Your task to perform on an android device: turn smart compose on in the gmail app Image 0: 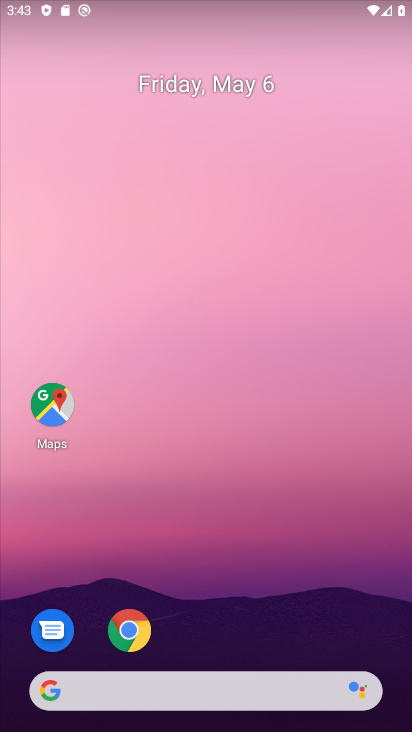
Step 0: drag from (278, 533) to (323, 21)
Your task to perform on an android device: turn smart compose on in the gmail app Image 1: 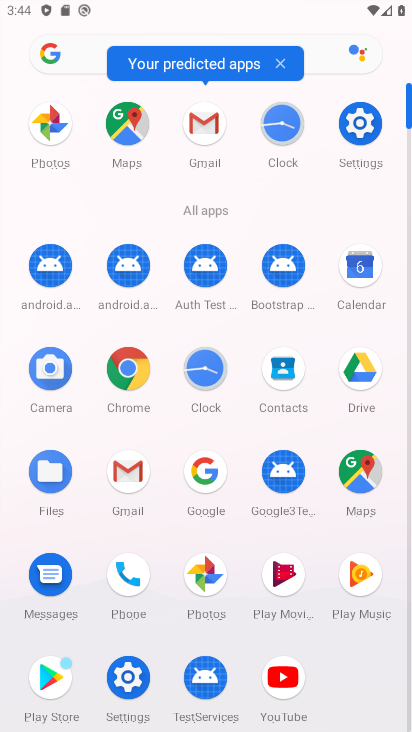
Step 1: click (130, 489)
Your task to perform on an android device: turn smart compose on in the gmail app Image 2: 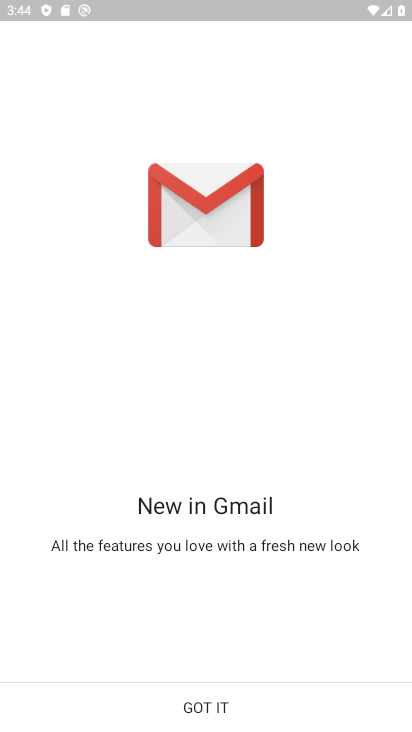
Step 2: click (282, 705)
Your task to perform on an android device: turn smart compose on in the gmail app Image 3: 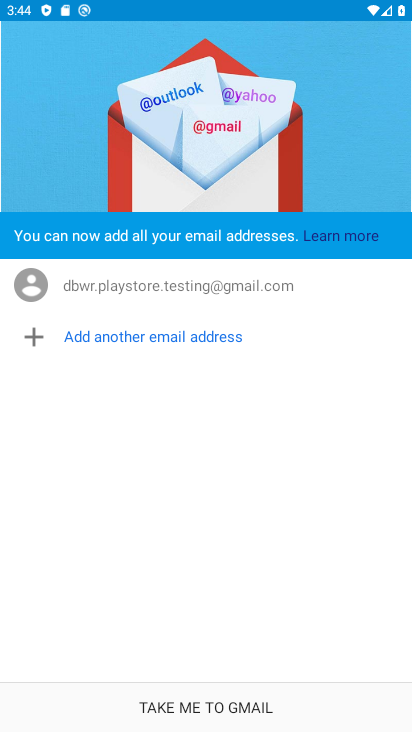
Step 3: click (291, 703)
Your task to perform on an android device: turn smart compose on in the gmail app Image 4: 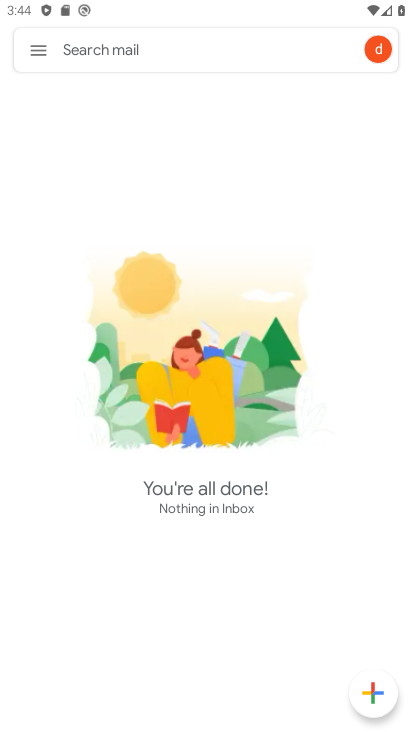
Step 4: click (45, 56)
Your task to perform on an android device: turn smart compose on in the gmail app Image 5: 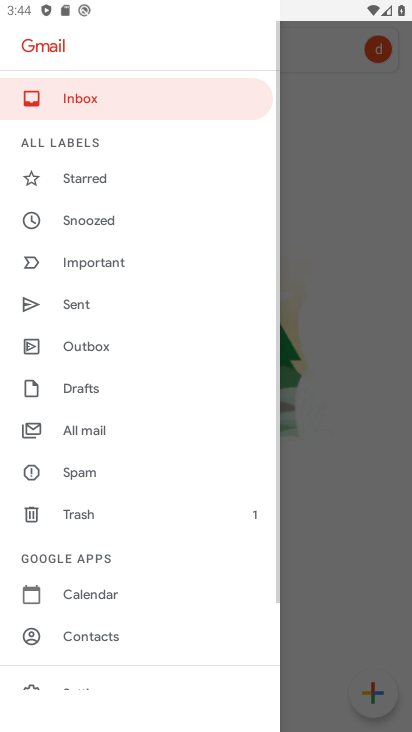
Step 5: drag from (89, 626) to (127, 285)
Your task to perform on an android device: turn smart compose on in the gmail app Image 6: 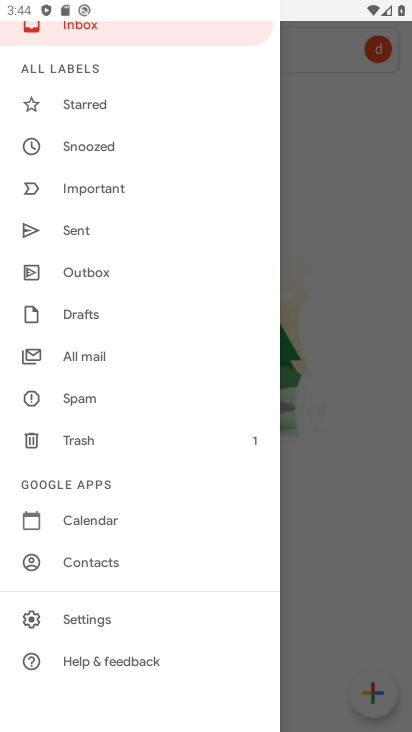
Step 6: click (99, 617)
Your task to perform on an android device: turn smart compose on in the gmail app Image 7: 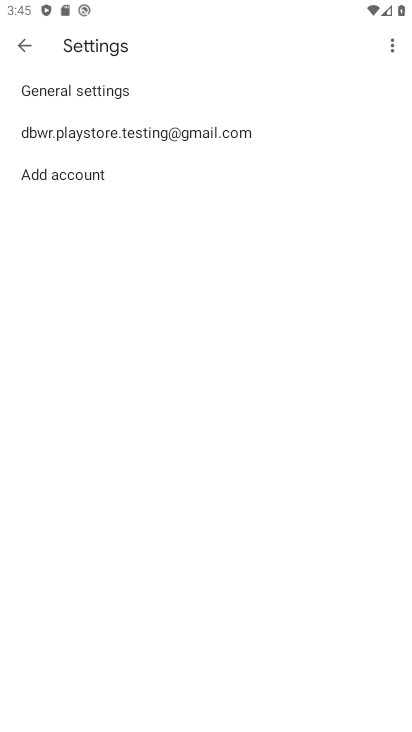
Step 7: click (96, 98)
Your task to perform on an android device: turn smart compose on in the gmail app Image 8: 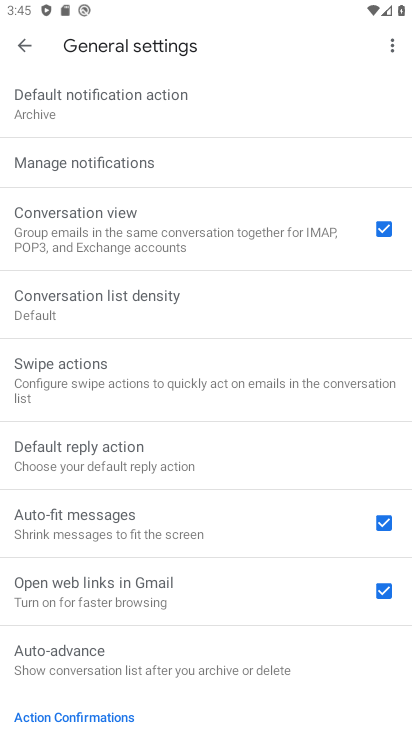
Step 8: click (13, 52)
Your task to perform on an android device: turn smart compose on in the gmail app Image 9: 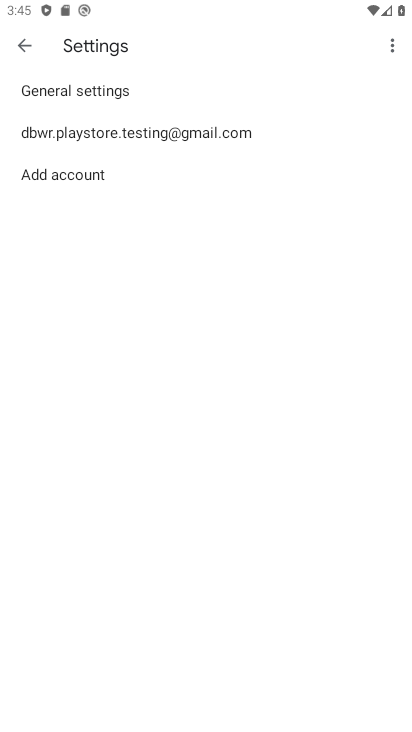
Step 9: click (116, 148)
Your task to perform on an android device: turn smart compose on in the gmail app Image 10: 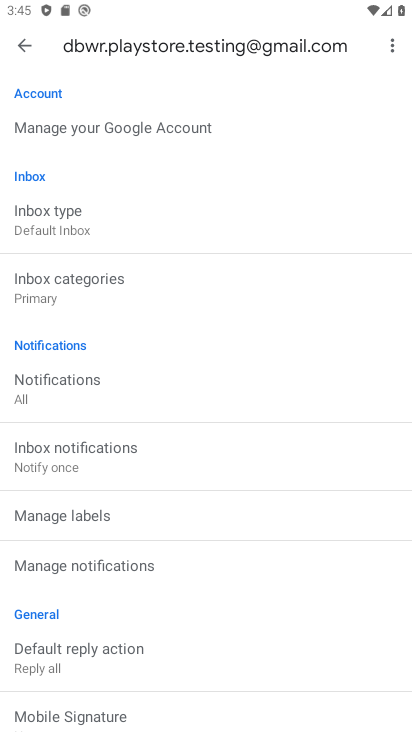
Step 10: drag from (188, 454) to (269, 143)
Your task to perform on an android device: turn smart compose on in the gmail app Image 11: 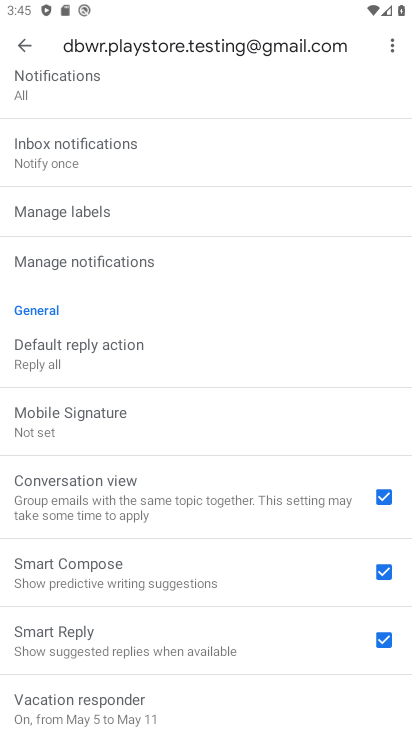
Step 11: drag from (166, 486) to (214, 272)
Your task to perform on an android device: turn smart compose on in the gmail app Image 12: 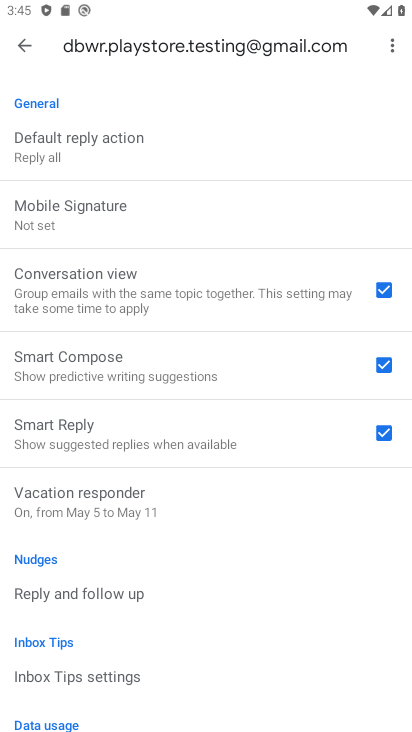
Step 12: click (211, 504)
Your task to perform on an android device: turn smart compose on in the gmail app Image 13: 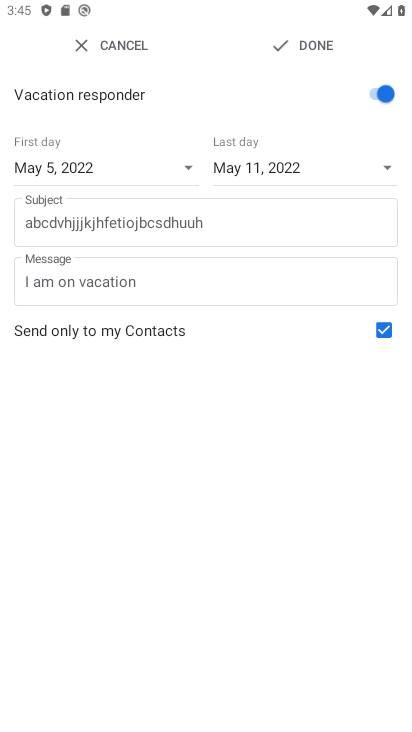
Step 13: task complete